Your task to perform on an android device: move a message to another label in the gmail app Image 0: 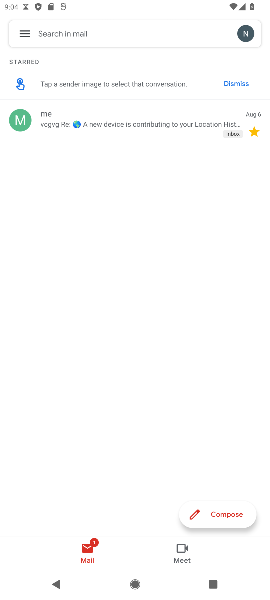
Step 0: click (87, 132)
Your task to perform on an android device: move a message to another label in the gmail app Image 1: 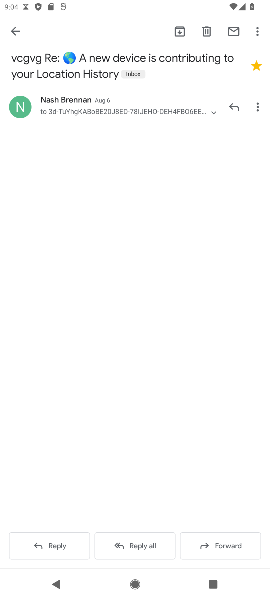
Step 1: click (259, 31)
Your task to perform on an android device: move a message to another label in the gmail app Image 2: 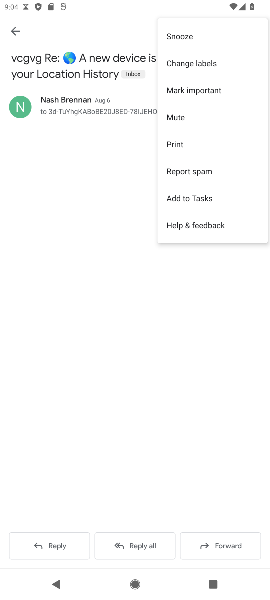
Step 2: click (203, 65)
Your task to perform on an android device: move a message to another label in the gmail app Image 3: 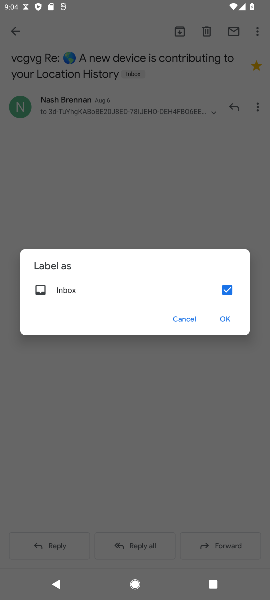
Step 3: click (216, 288)
Your task to perform on an android device: move a message to another label in the gmail app Image 4: 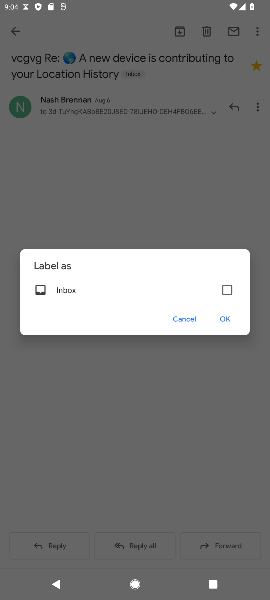
Step 4: click (226, 324)
Your task to perform on an android device: move a message to another label in the gmail app Image 5: 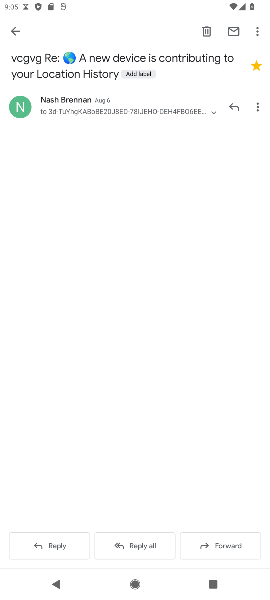
Step 5: task complete